Your task to perform on an android device: Open the map Image 0: 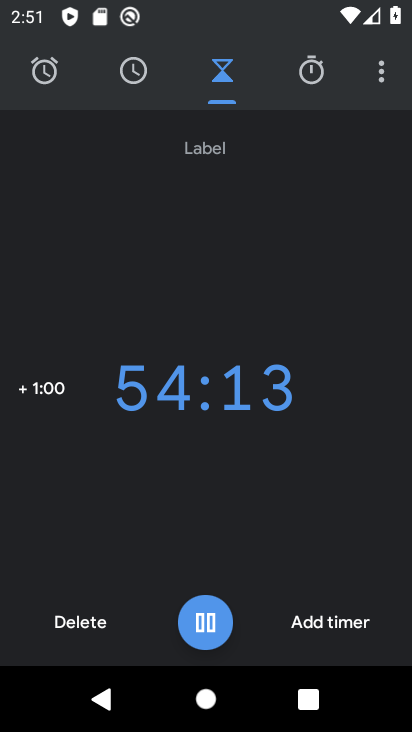
Step 0: press home button
Your task to perform on an android device: Open the map Image 1: 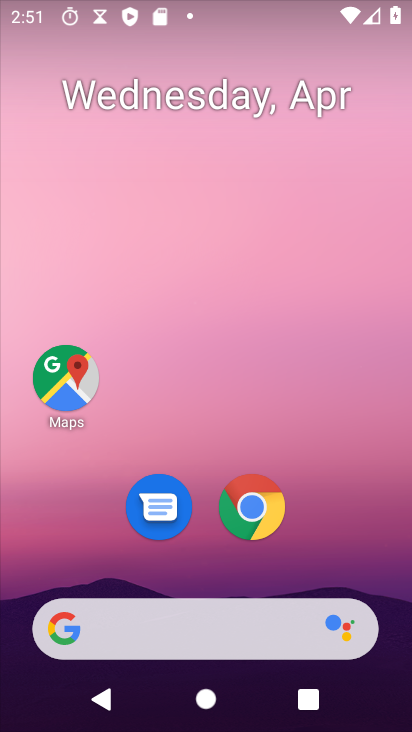
Step 1: click (51, 379)
Your task to perform on an android device: Open the map Image 2: 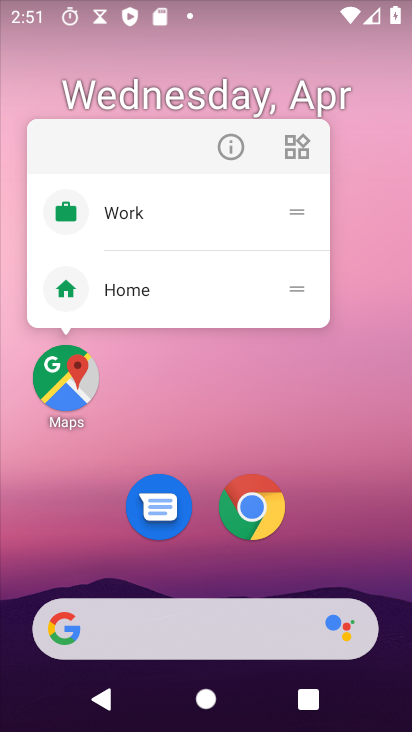
Step 2: click (61, 380)
Your task to perform on an android device: Open the map Image 3: 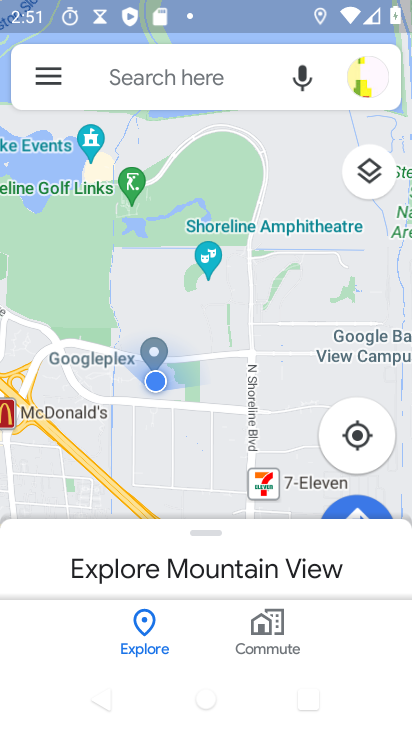
Step 3: task complete